Your task to perform on an android device: open a new tab in the chrome app Image 0: 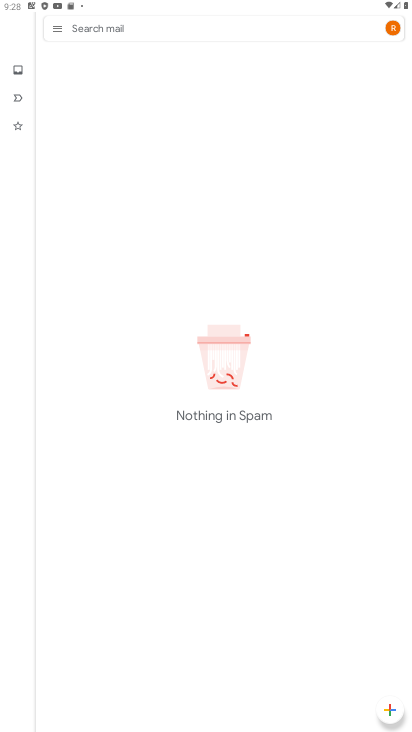
Step 0: press home button
Your task to perform on an android device: open a new tab in the chrome app Image 1: 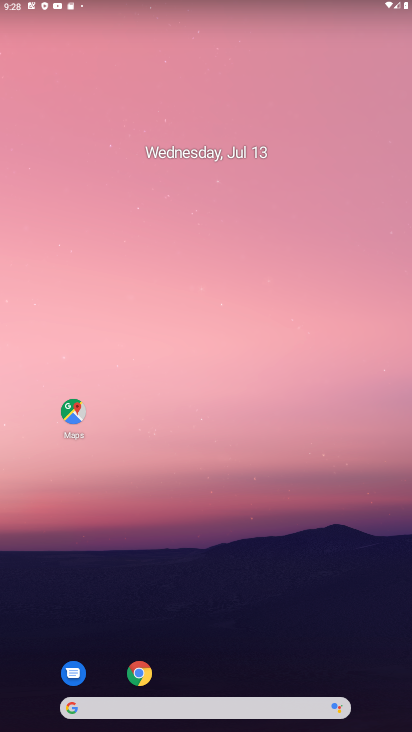
Step 1: click (143, 675)
Your task to perform on an android device: open a new tab in the chrome app Image 2: 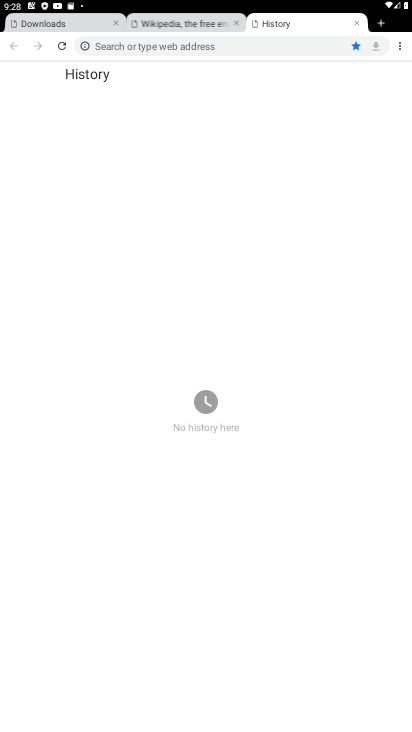
Step 2: click (381, 27)
Your task to perform on an android device: open a new tab in the chrome app Image 3: 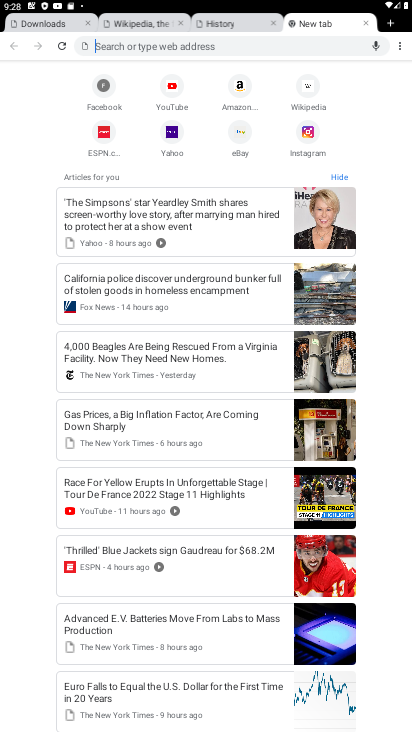
Step 3: task complete